Your task to perform on an android device: Is it going to rain this weekend? Image 0: 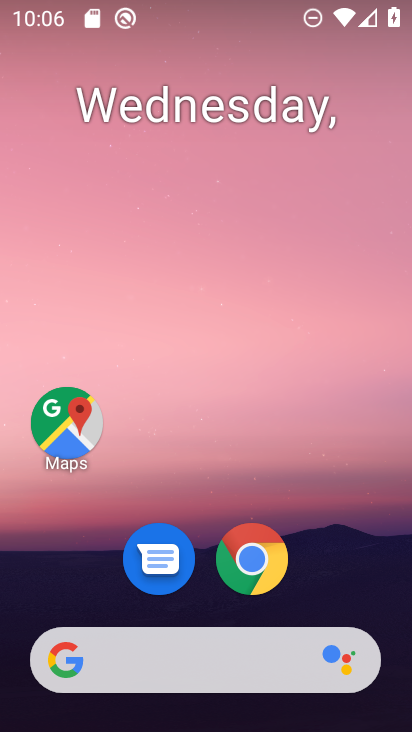
Step 0: click (252, 659)
Your task to perform on an android device: Is it going to rain this weekend? Image 1: 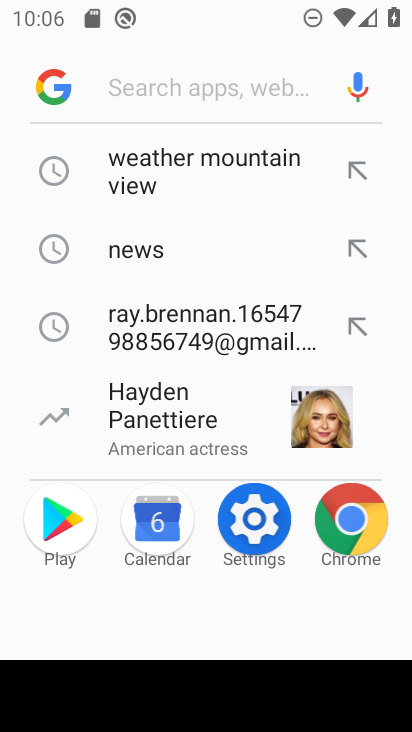
Step 1: click (207, 161)
Your task to perform on an android device: Is it going to rain this weekend? Image 2: 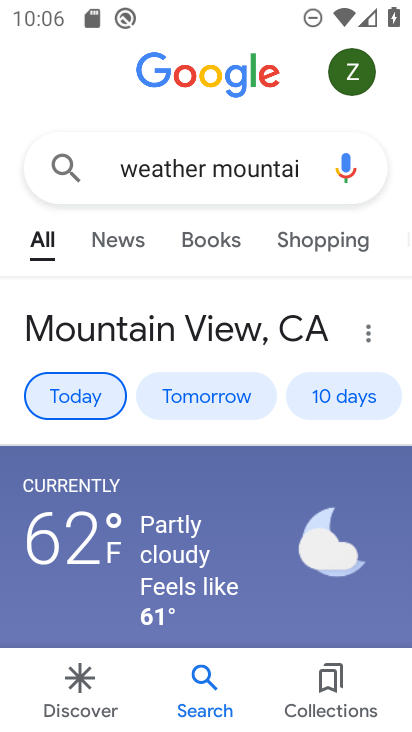
Step 2: click (346, 394)
Your task to perform on an android device: Is it going to rain this weekend? Image 3: 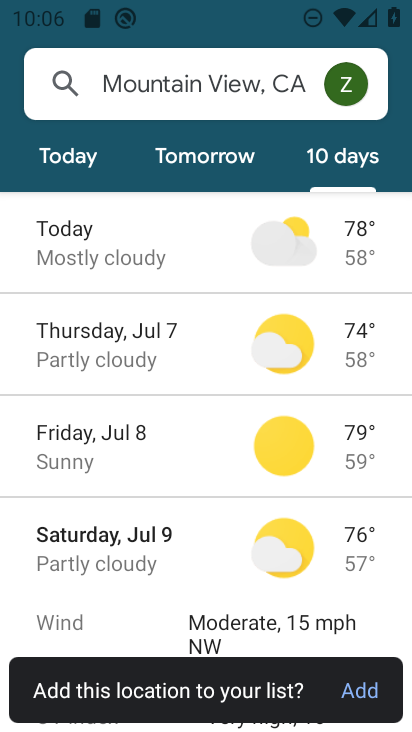
Step 3: task complete